Your task to perform on an android device: Check the news Image 0: 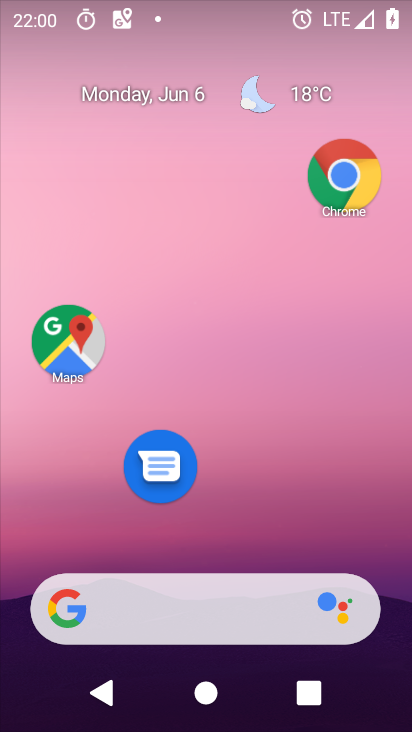
Step 0: click (357, 109)
Your task to perform on an android device: Check the news Image 1: 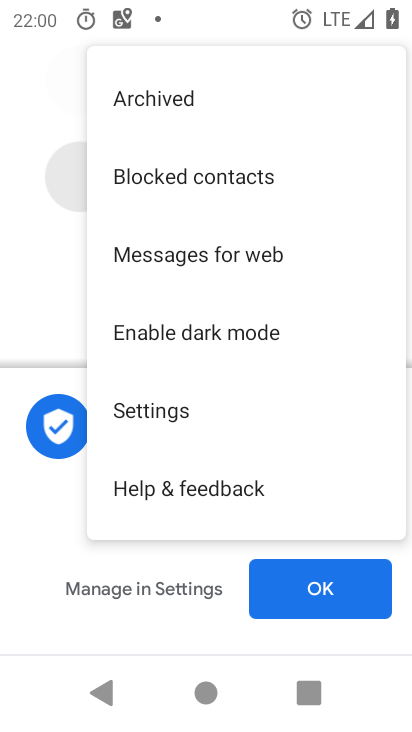
Step 1: press home button
Your task to perform on an android device: Check the news Image 2: 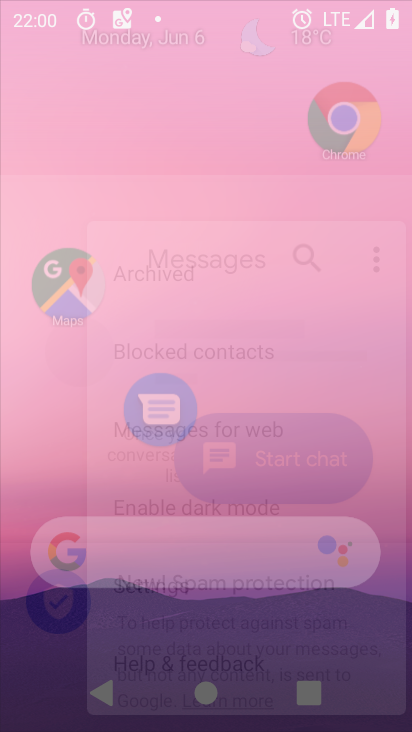
Step 2: drag from (279, 475) to (387, 2)
Your task to perform on an android device: Check the news Image 3: 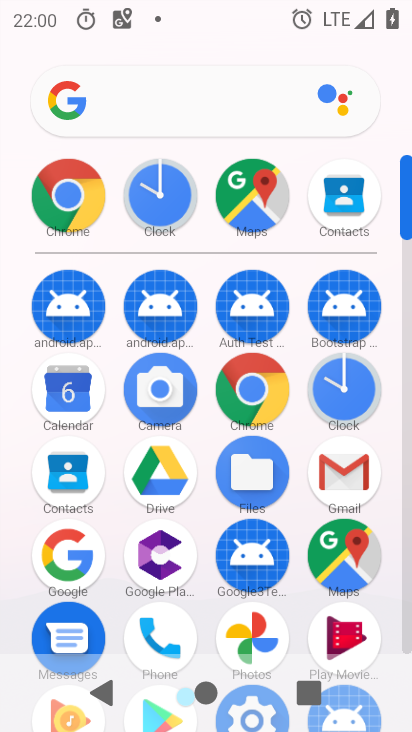
Step 3: click (170, 83)
Your task to perform on an android device: Check the news Image 4: 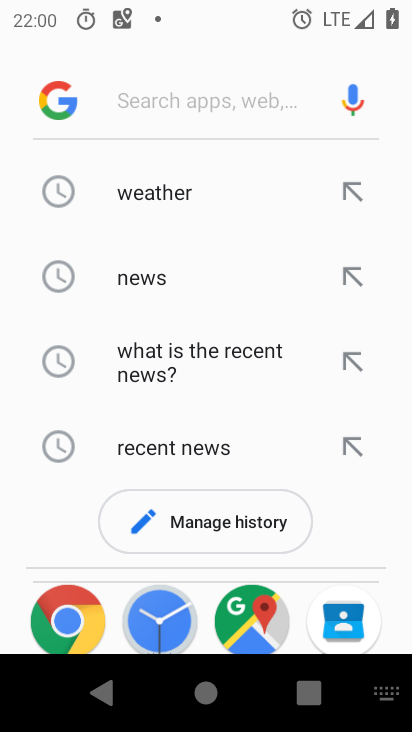
Step 4: click (151, 271)
Your task to perform on an android device: Check the news Image 5: 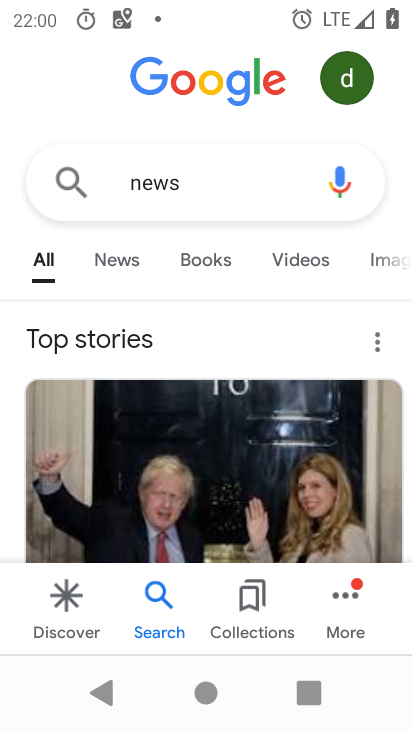
Step 5: task complete